Your task to perform on an android device: allow notifications from all sites in the chrome app Image 0: 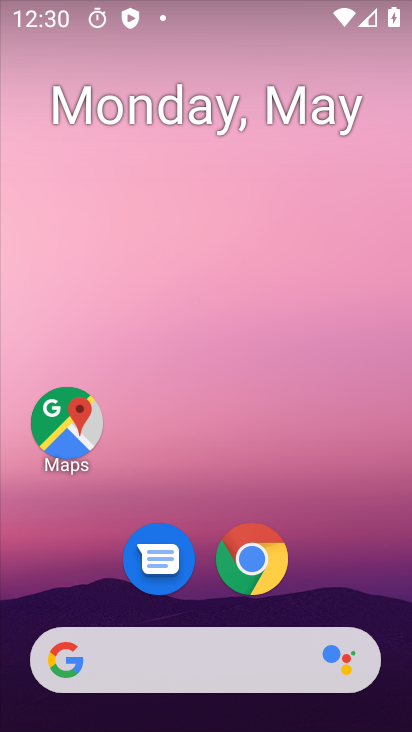
Step 0: drag from (352, 644) to (357, 69)
Your task to perform on an android device: allow notifications from all sites in the chrome app Image 1: 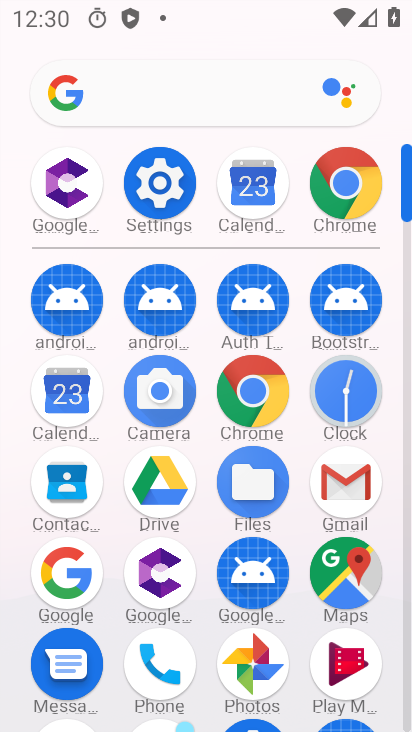
Step 1: click (275, 376)
Your task to perform on an android device: allow notifications from all sites in the chrome app Image 2: 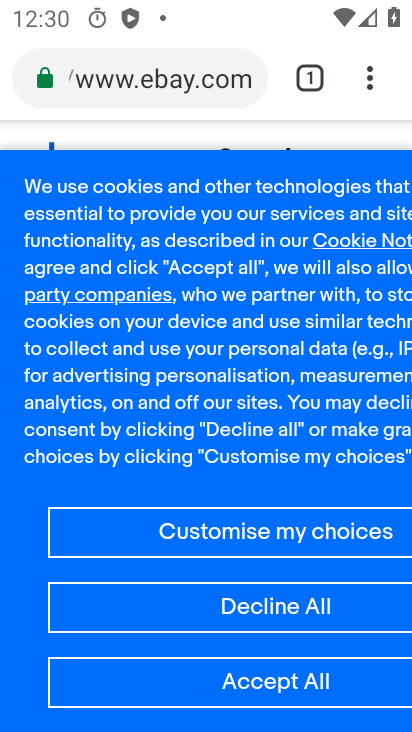
Step 2: drag from (364, 71) to (185, 614)
Your task to perform on an android device: allow notifications from all sites in the chrome app Image 3: 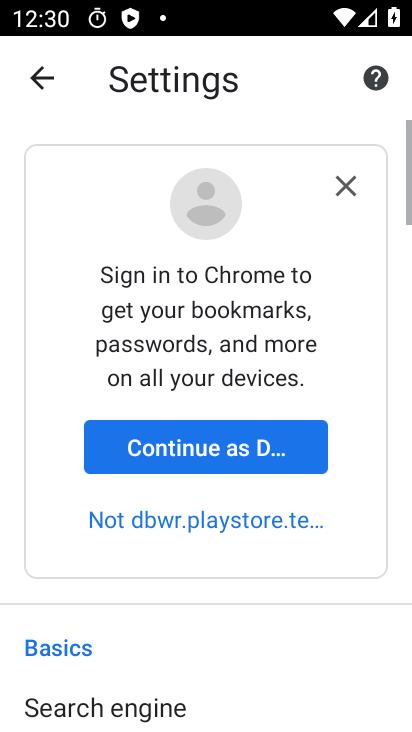
Step 3: drag from (185, 614) to (183, 96)
Your task to perform on an android device: allow notifications from all sites in the chrome app Image 4: 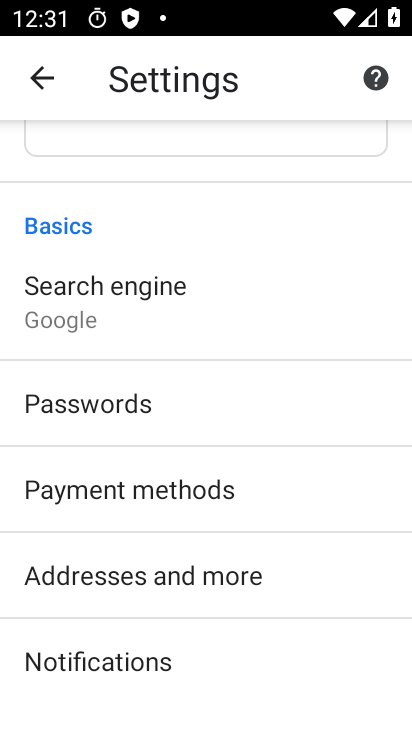
Step 4: drag from (266, 674) to (294, 224)
Your task to perform on an android device: allow notifications from all sites in the chrome app Image 5: 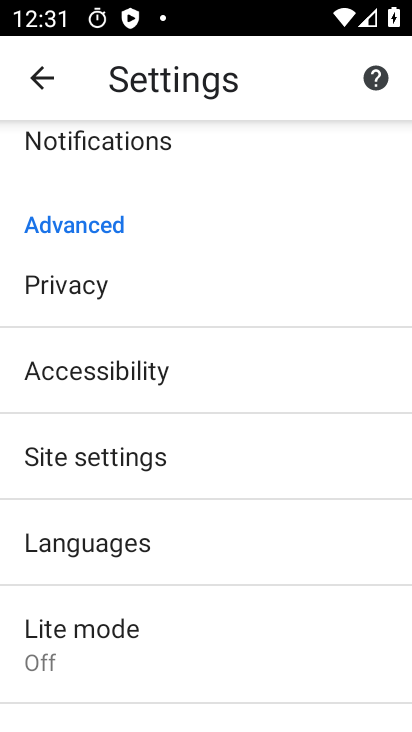
Step 5: click (128, 450)
Your task to perform on an android device: allow notifications from all sites in the chrome app Image 6: 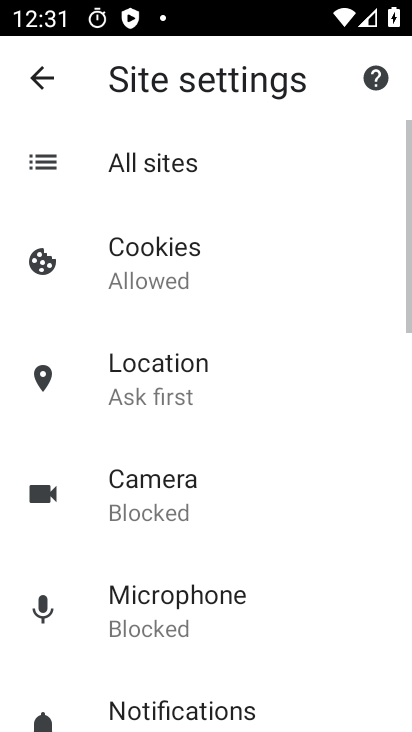
Step 6: drag from (195, 716) to (292, 288)
Your task to perform on an android device: allow notifications from all sites in the chrome app Image 7: 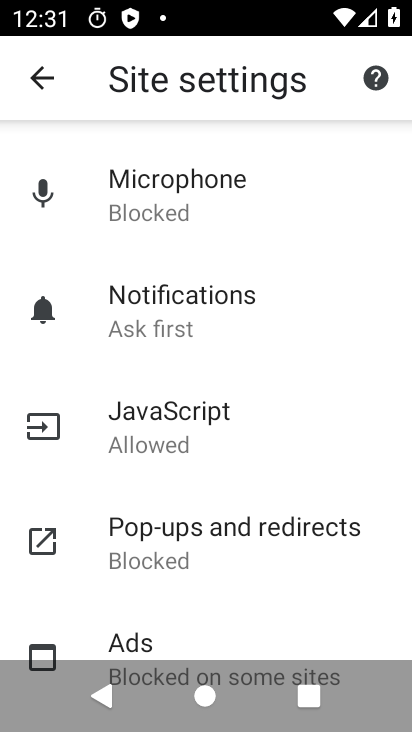
Step 7: click (204, 293)
Your task to perform on an android device: allow notifications from all sites in the chrome app Image 8: 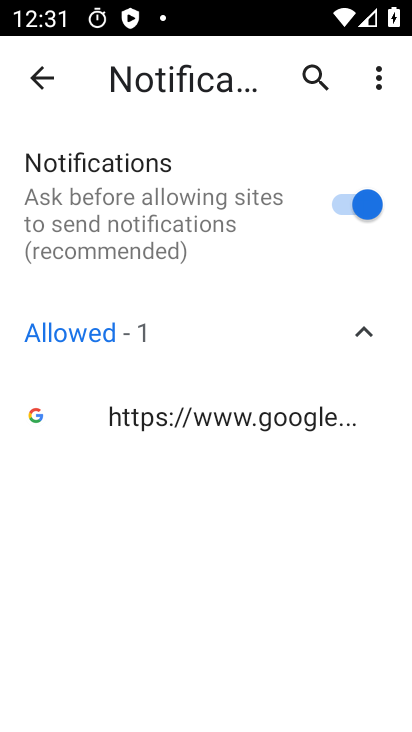
Step 8: task complete